Your task to perform on an android device: all mails in gmail Image 0: 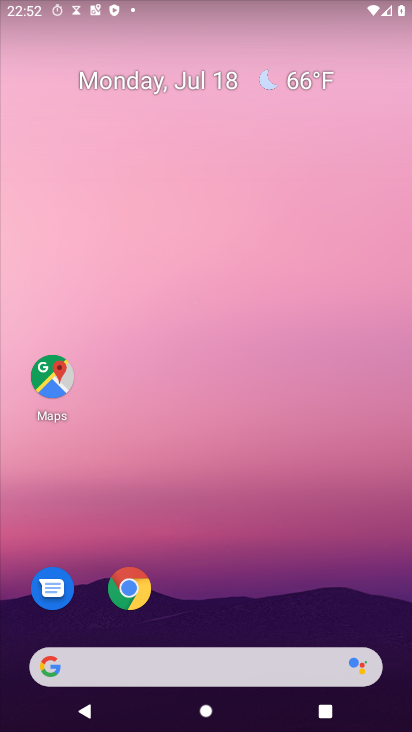
Step 0: drag from (226, 655) to (233, 108)
Your task to perform on an android device: all mails in gmail Image 1: 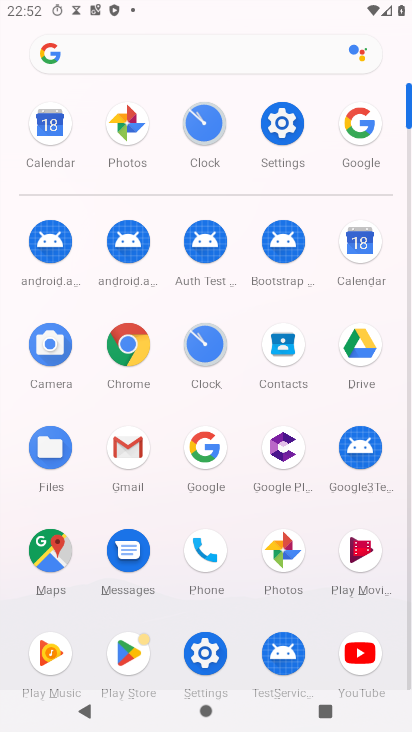
Step 1: click (126, 446)
Your task to perform on an android device: all mails in gmail Image 2: 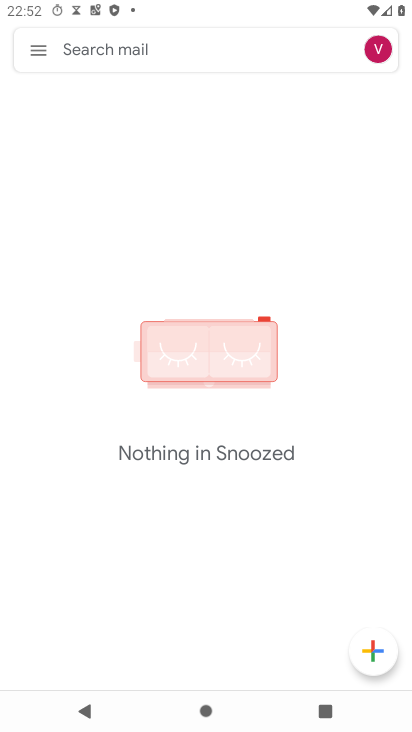
Step 2: click (30, 39)
Your task to perform on an android device: all mails in gmail Image 3: 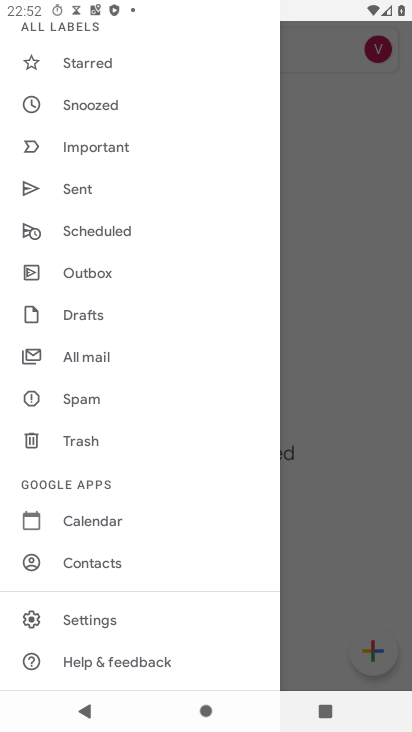
Step 3: click (84, 352)
Your task to perform on an android device: all mails in gmail Image 4: 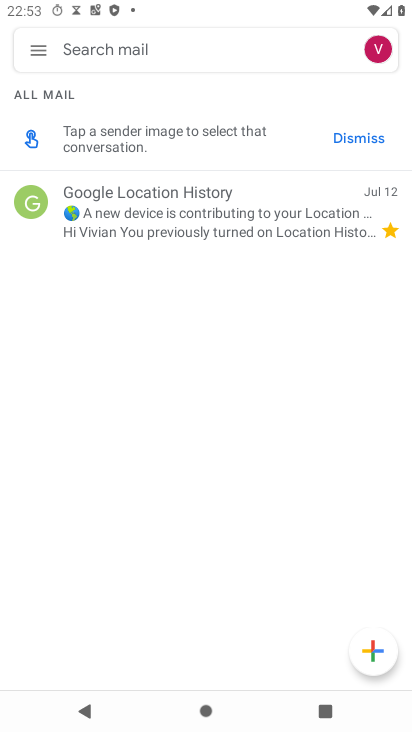
Step 4: task complete